Your task to perform on an android device: Open sound settings Image 0: 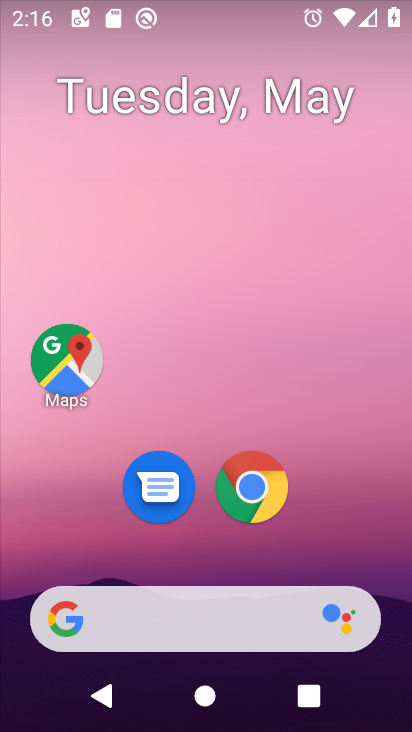
Step 0: drag from (10, 641) to (296, 170)
Your task to perform on an android device: Open sound settings Image 1: 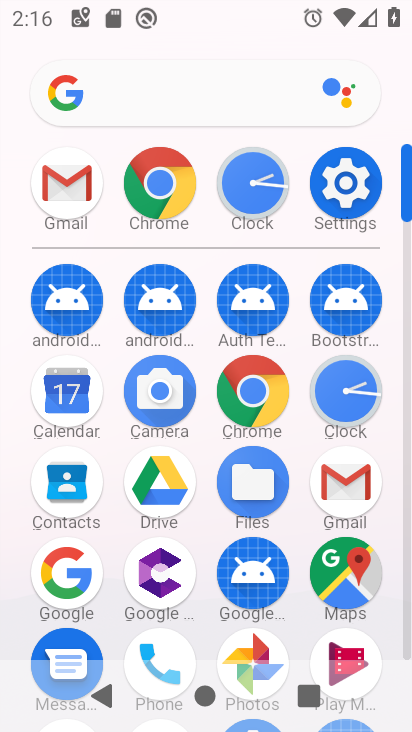
Step 1: click (338, 174)
Your task to perform on an android device: Open sound settings Image 2: 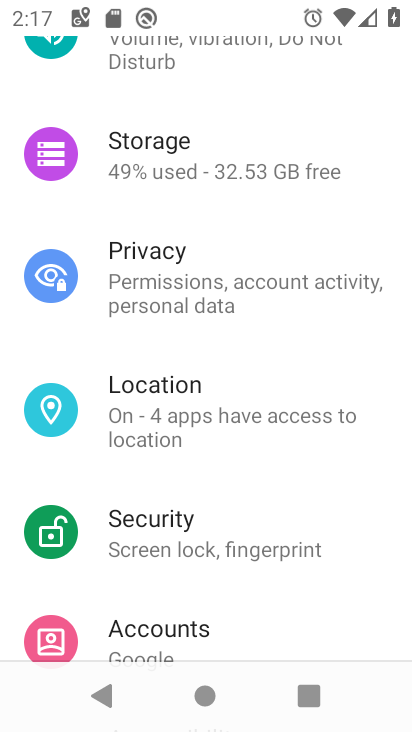
Step 2: drag from (281, 156) to (261, 516)
Your task to perform on an android device: Open sound settings Image 3: 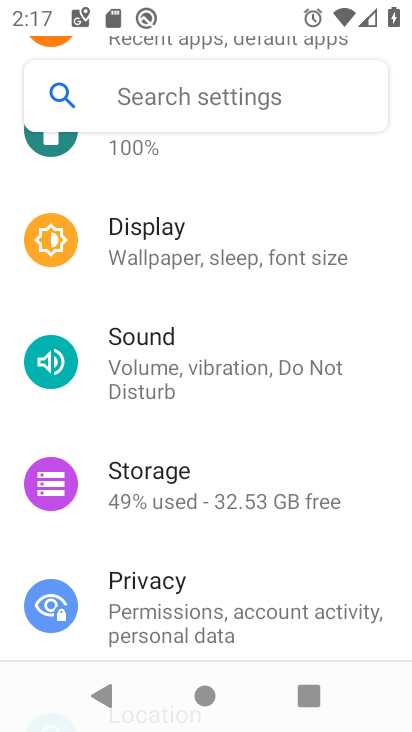
Step 3: drag from (132, 606) to (318, 139)
Your task to perform on an android device: Open sound settings Image 4: 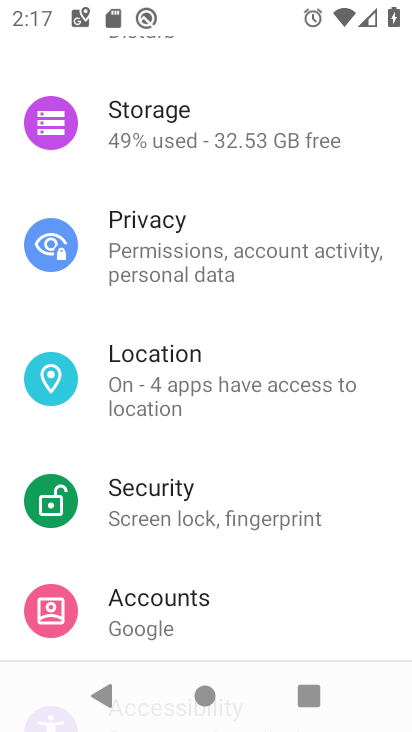
Step 4: drag from (228, 197) to (235, 532)
Your task to perform on an android device: Open sound settings Image 5: 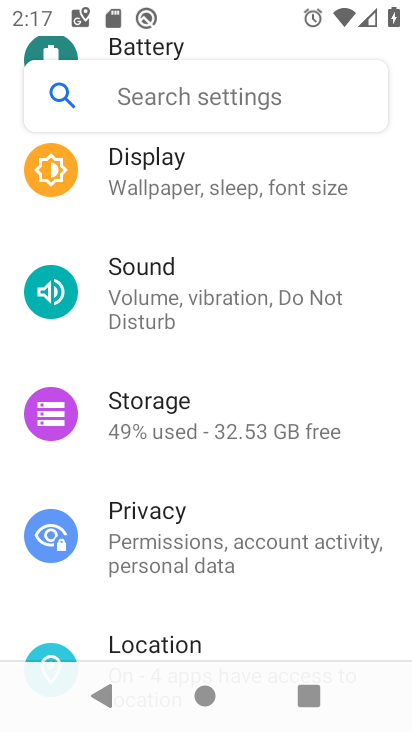
Step 5: click (273, 298)
Your task to perform on an android device: Open sound settings Image 6: 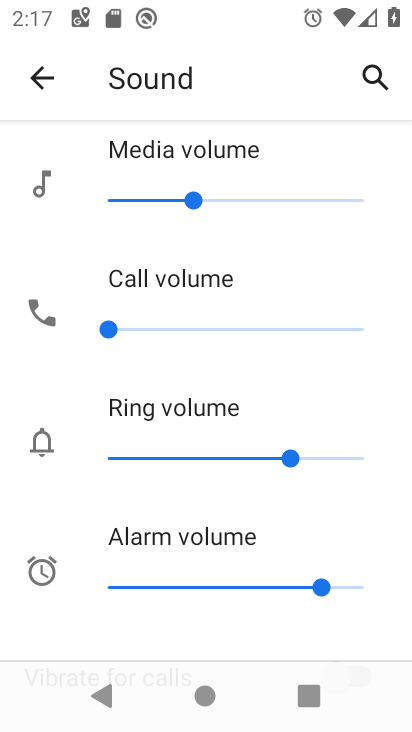
Step 6: task complete